Your task to perform on an android device: Turn on the flashlight Image 0: 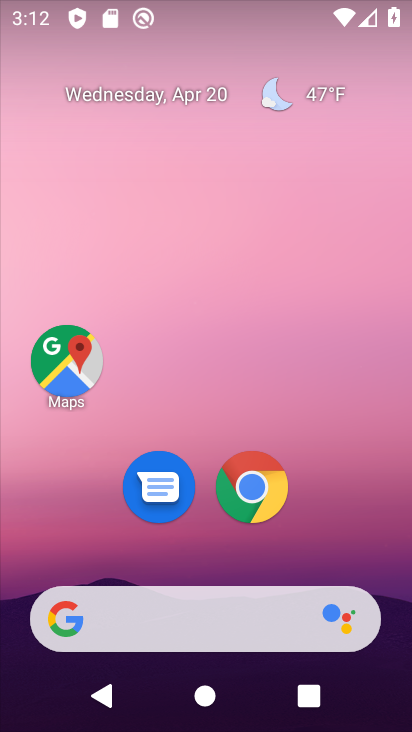
Step 0: press home button
Your task to perform on an android device: Turn on the flashlight Image 1: 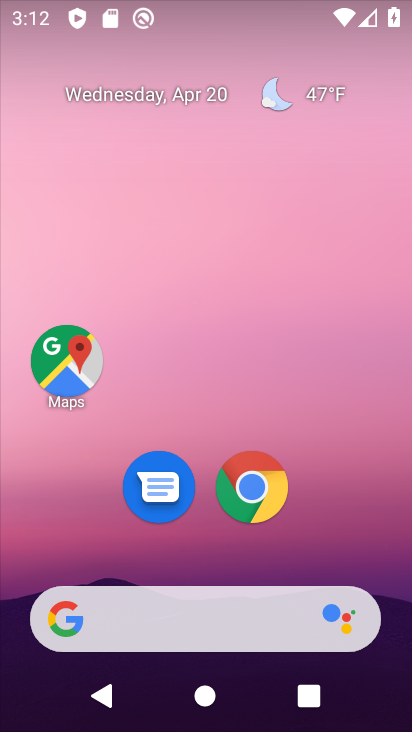
Step 1: drag from (388, 554) to (377, 201)
Your task to perform on an android device: Turn on the flashlight Image 2: 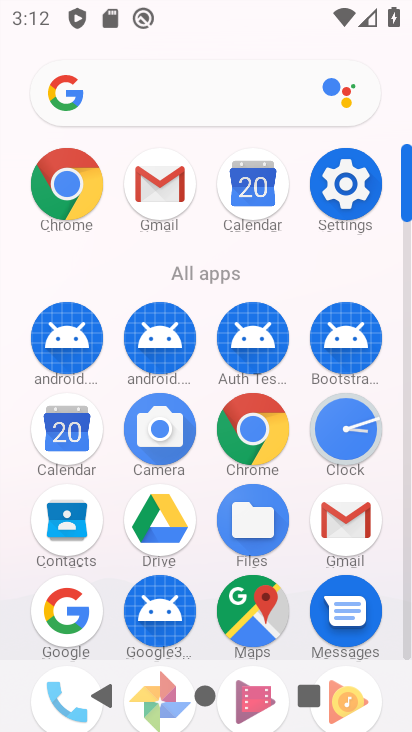
Step 2: click (361, 192)
Your task to perform on an android device: Turn on the flashlight Image 3: 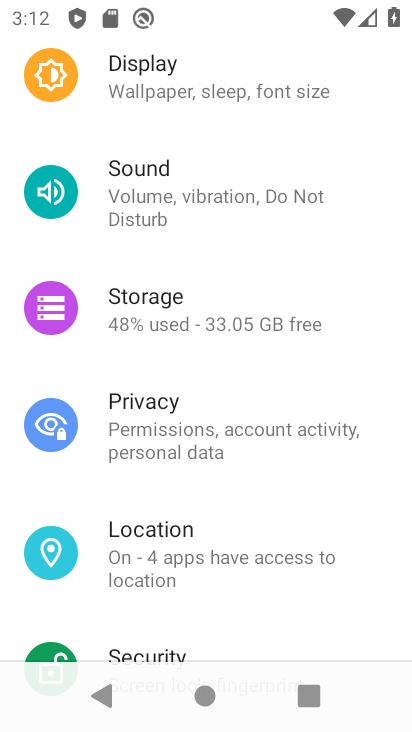
Step 3: drag from (335, 134) to (338, 526)
Your task to perform on an android device: Turn on the flashlight Image 4: 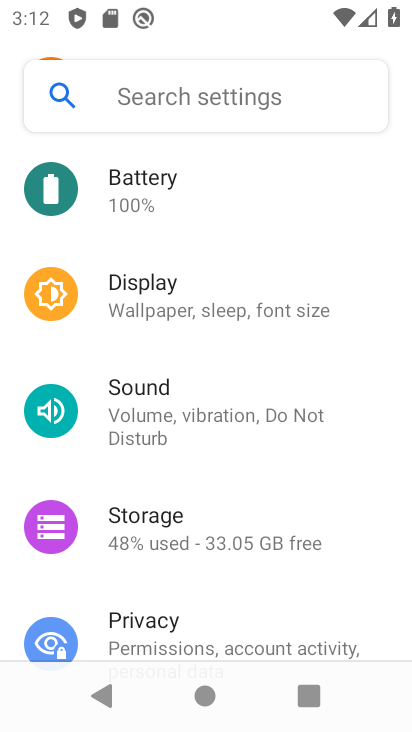
Step 4: click (243, 93)
Your task to perform on an android device: Turn on the flashlight Image 5: 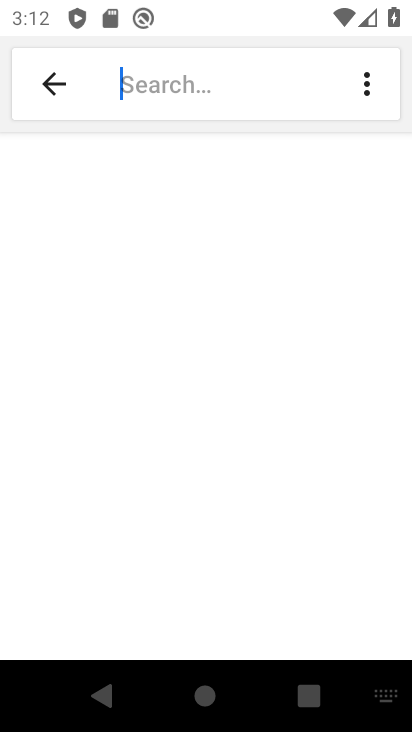
Step 5: type "flashlight"
Your task to perform on an android device: Turn on the flashlight Image 6: 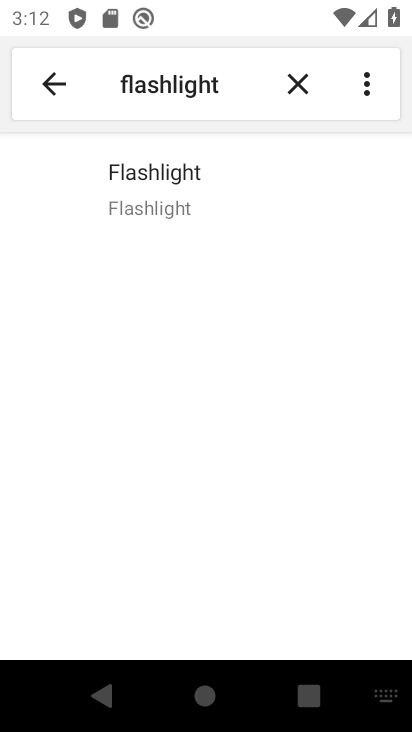
Step 6: click (167, 182)
Your task to perform on an android device: Turn on the flashlight Image 7: 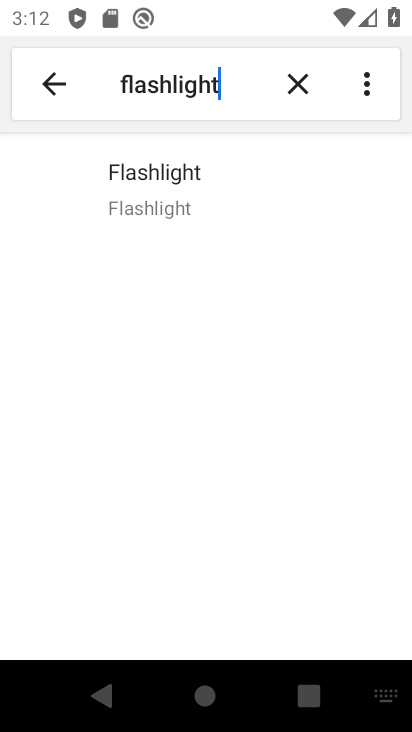
Step 7: task complete